Your task to perform on an android device: find photos in the google photos app Image 0: 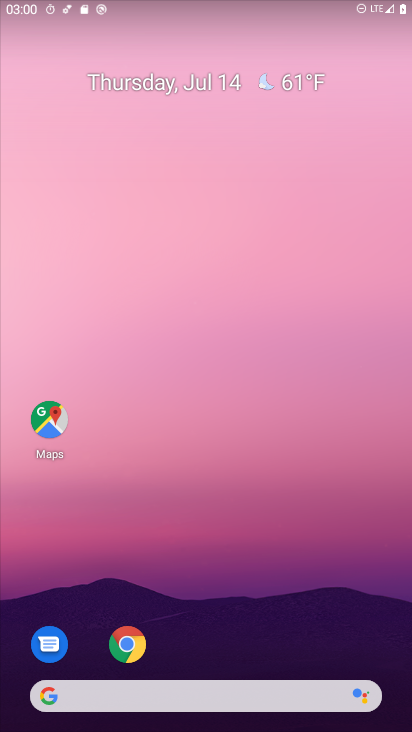
Step 0: drag from (264, 631) to (161, 108)
Your task to perform on an android device: find photos in the google photos app Image 1: 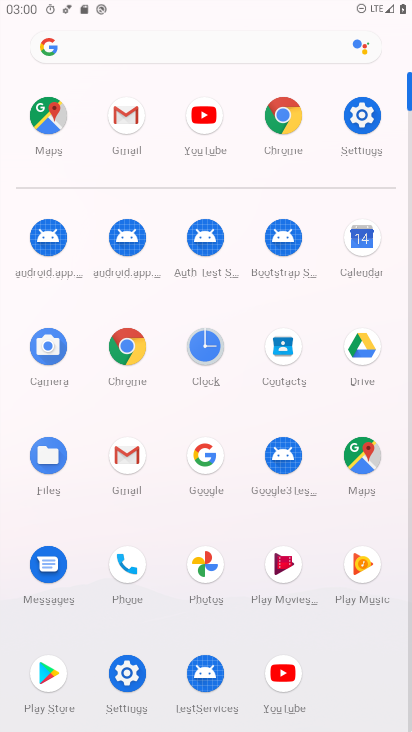
Step 1: click (204, 564)
Your task to perform on an android device: find photos in the google photos app Image 2: 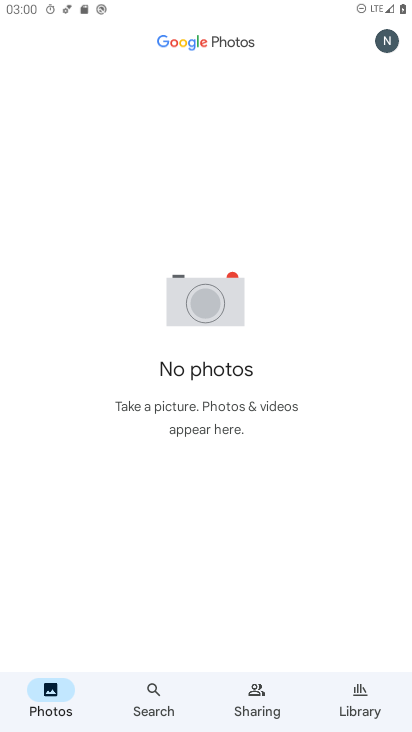
Step 2: task complete